Your task to perform on an android device: turn on priority inbox in the gmail app Image 0: 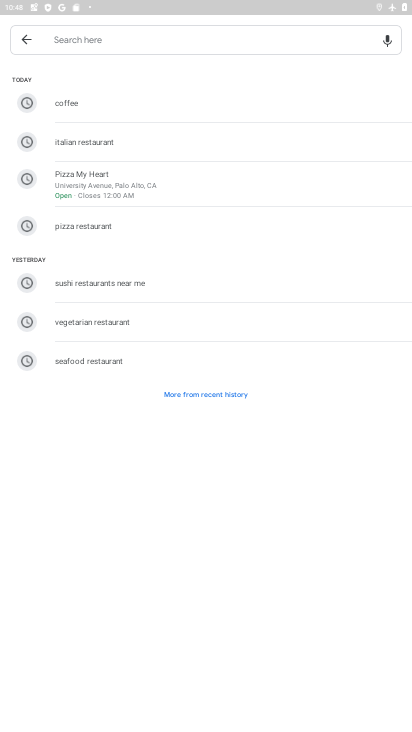
Step 0: press home button
Your task to perform on an android device: turn on priority inbox in the gmail app Image 1: 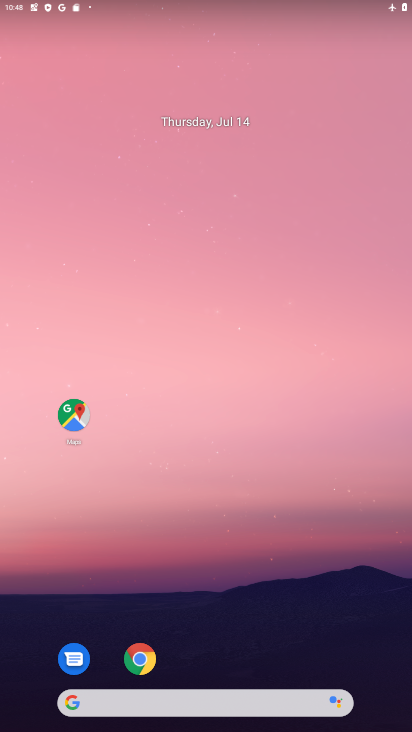
Step 1: drag from (283, 599) to (260, 113)
Your task to perform on an android device: turn on priority inbox in the gmail app Image 2: 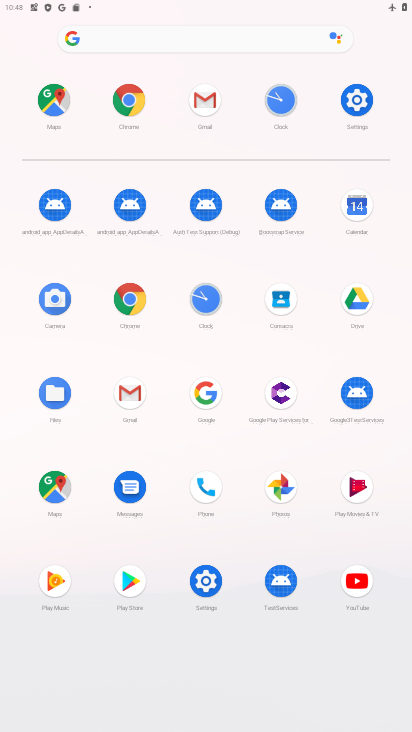
Step 2: click (199, 93)
Your task to perform on an android device: turn on priority inbox in the gmail app Image 3: 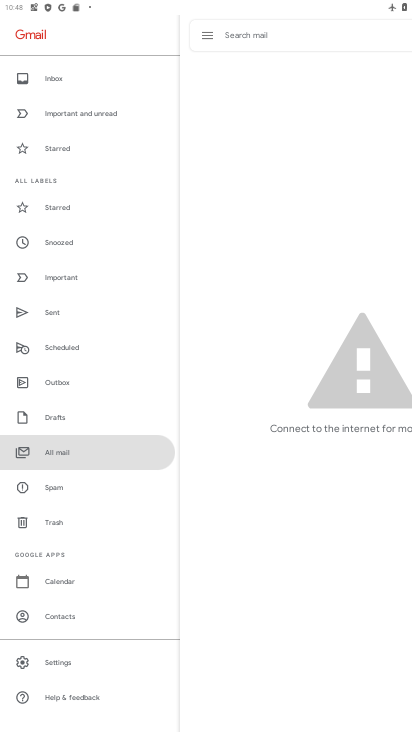
Step 3: click (83, 673)
Your task to perform on an android device: turn on priority inbox in the gmail app Image 4: 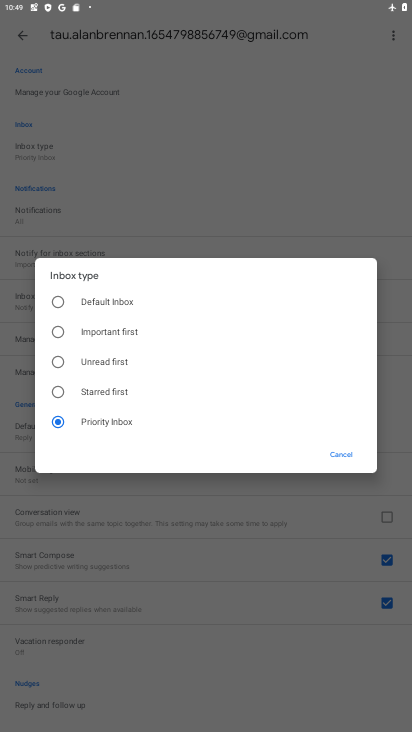
Step 4: task complete